Your task to perform on an android device: Open settings Image 0: 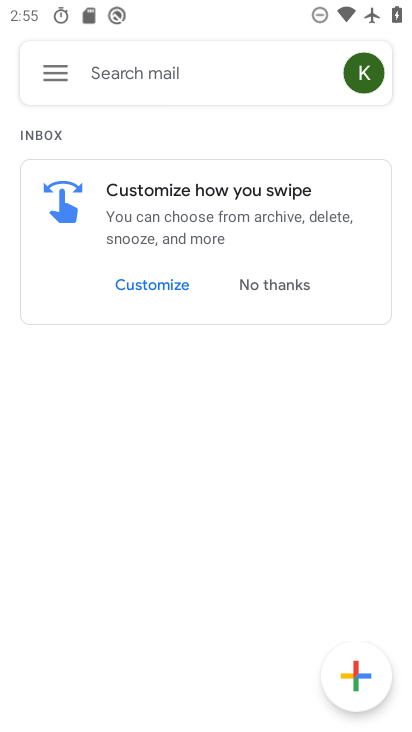
Step 0: press home button
Your task to perform on an android device: Open settings Image 1: 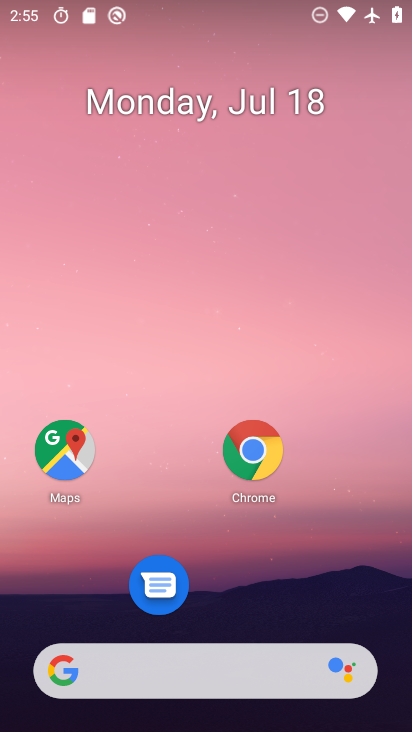
Step 1: drag from (201, 663) to (261, 159)
Your task to perform on an android device: Open settings Image 2: 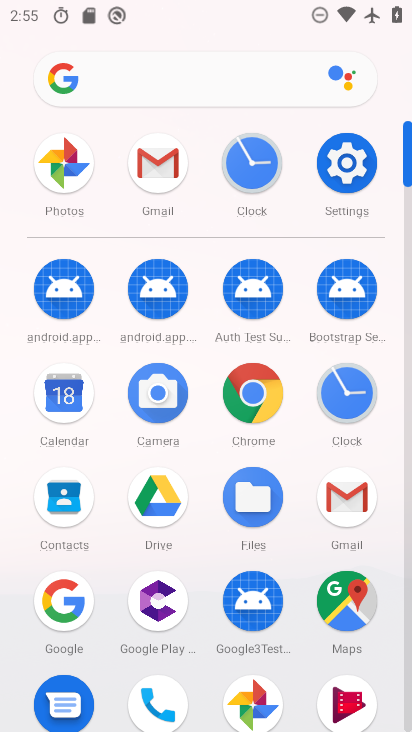
Step 2: click (337, 267)
Your task to perform on an android device: Open settings Image 3: 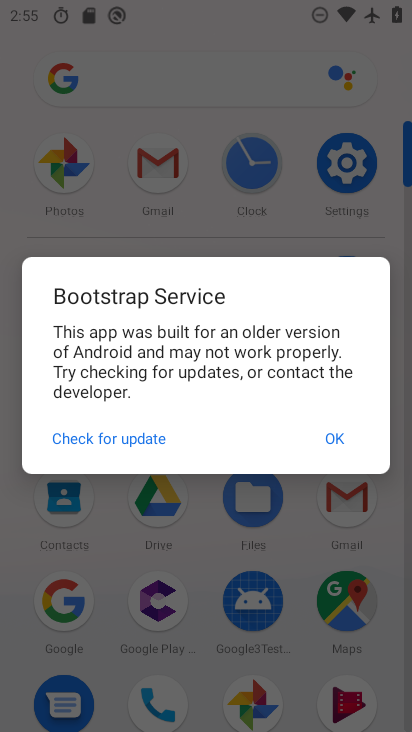
Step 3: click (358, 159)
Your task to perform on an android device: Open settings Image 4: 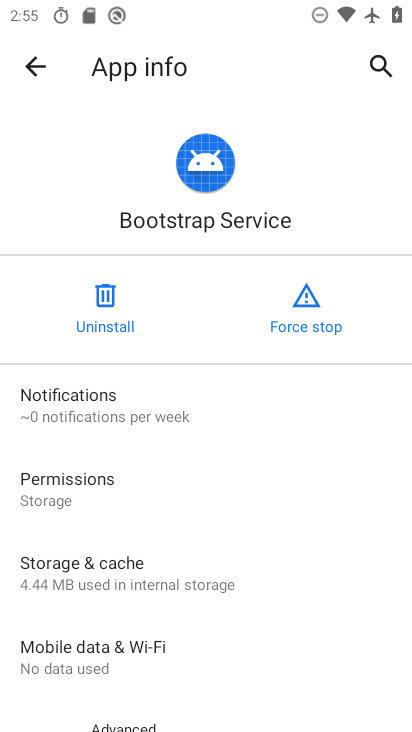
Step 4: click (33, 57)
Your task to perform on an android device: Open settings Image 5: 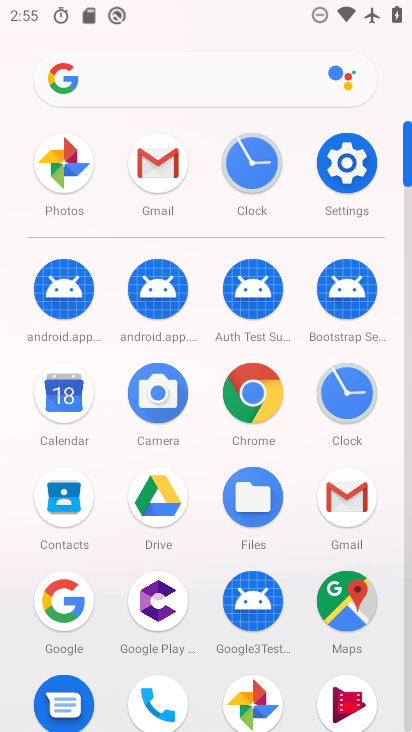
Step 5: click (350, 159)
Your task to perform on an android device: Open settings Image 6: 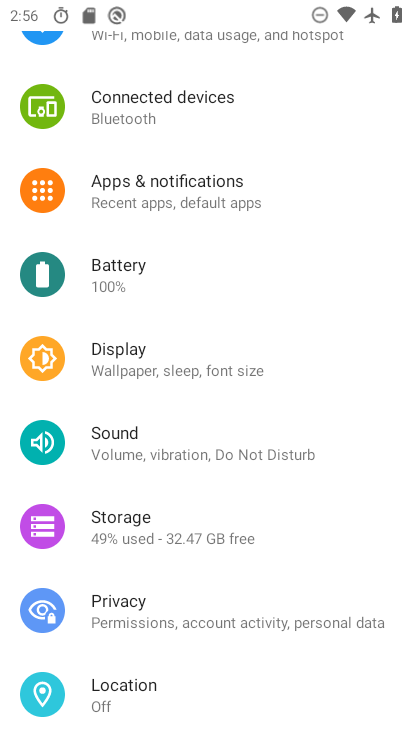
Step 6: task complete